Your task to perform on an android device: see tabs open on other devices in the chrome app Image 0: 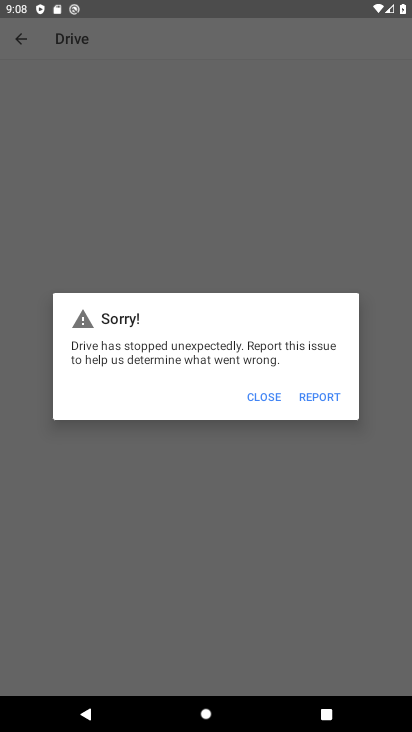
Step 0: press home button
Your task to perform on an android device: see tabs open on other devices in the chrome app Image 1: 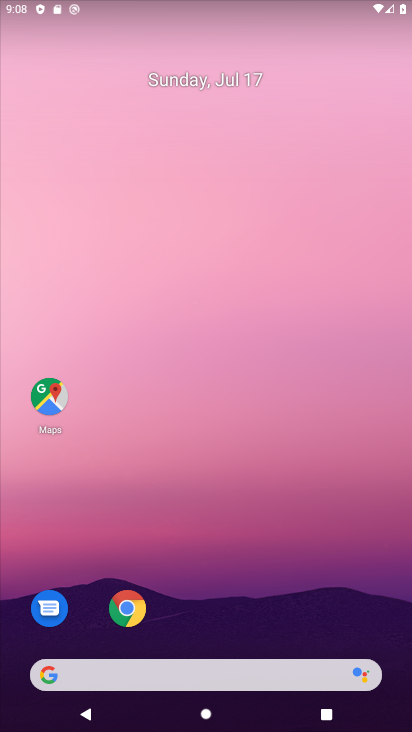
Step 1: drag from (315, 618) to (359, 14)
Your task to perform on an android device: see tabs open on other devices in the chrome app Image 2: 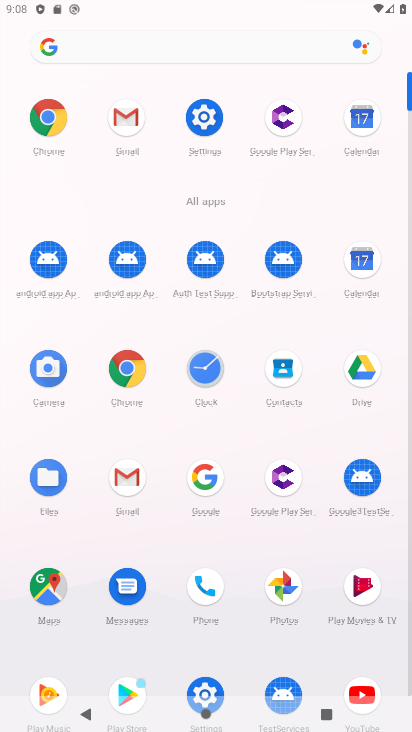
Step 2: click (51, 115)
Your task to perform on an android device: see tabs open on other devices in the chrome app Image 3: 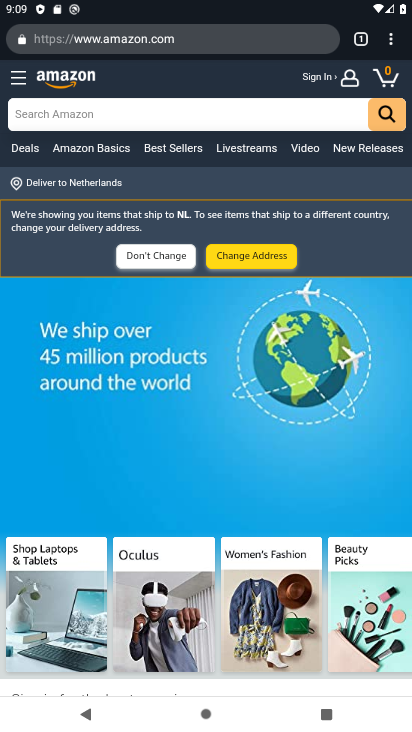
Step 3: drag from (396, 43) to (259, 173)
Your task to perform on an android device: see tabs open on other devices in the chrome app Image 4: 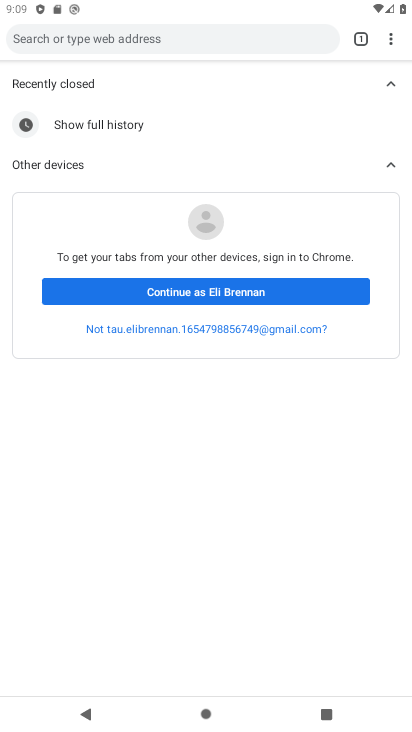
Step 4: click (222, 293)
Your task to perform on an android device: see tabs open on other devices in the chrome app Image 5: 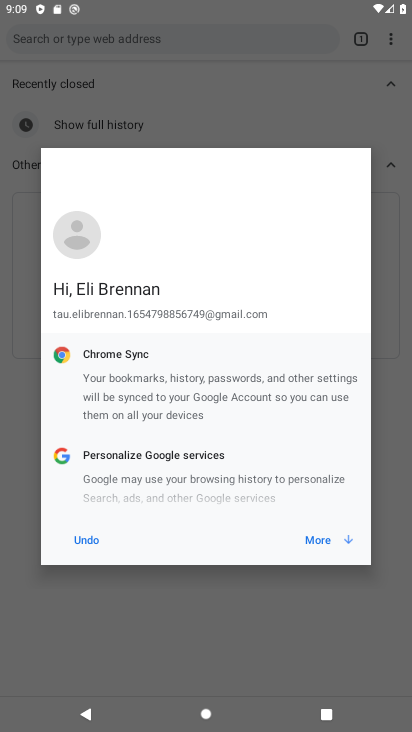
Step 5: click (325, 539)
Your task to perform on an android device: see tabs open on other devices in the chrome app Image 6: 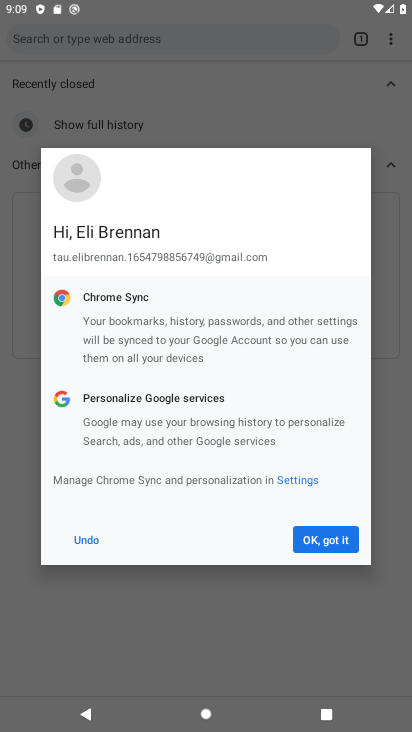
Step 6: click (325, 538)
Your task to perform on an android device: see tabs open on other devices in the chrome app Image 7: 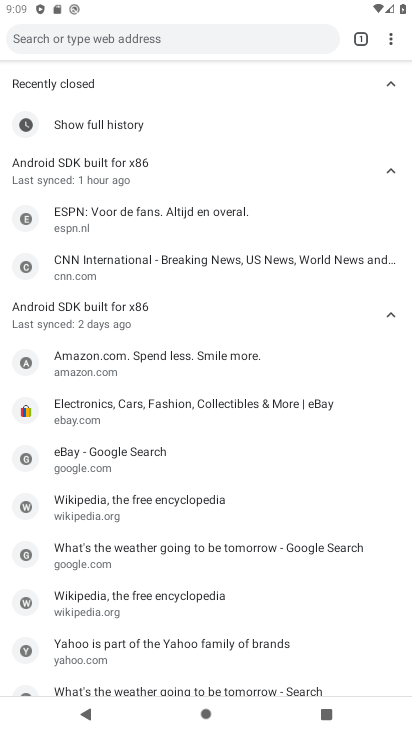
Step 7: task complete